Your task to perform on an android device: toggle sleep mode Image 0: 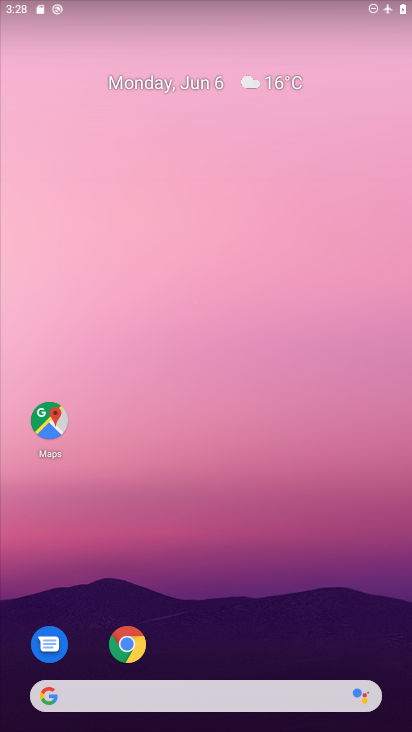
Step 0: drag from (185, 114) to (160, 44)
Your task to perform on an android device: toggle sleep mode Image 1: 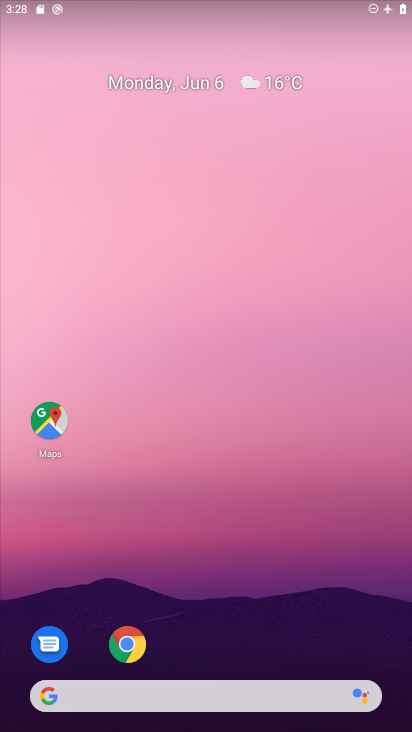
Step 1: drag from (267, 601) to (216, 51)
Your task to perform on an android device: toggle sleep mode Image 2: 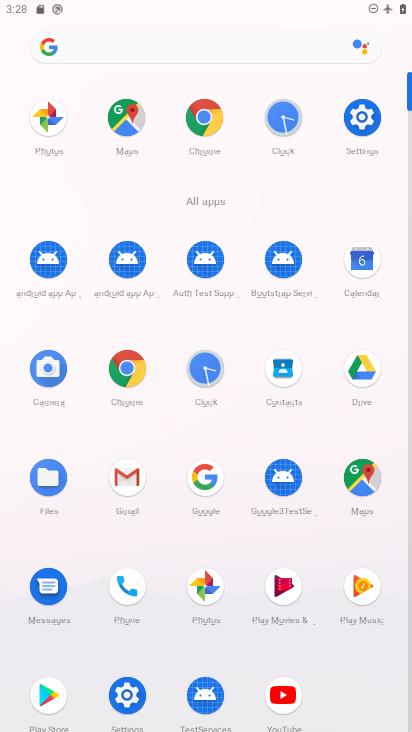
Step 2: click (356, 114)
Your task to perform on an android device: toggle sleep mode Image 3: 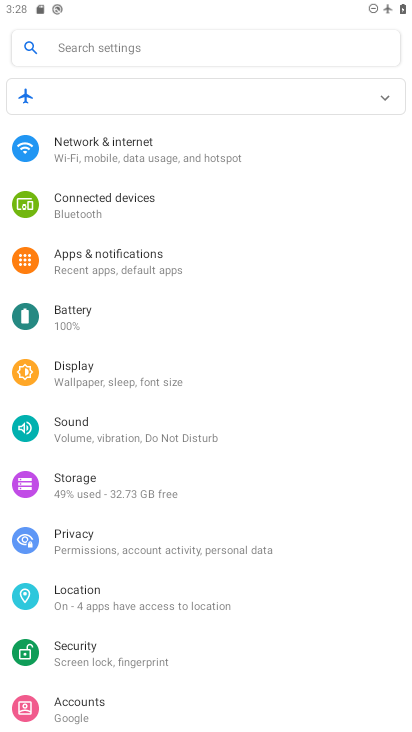
Step 3: click (100, 376)
Your task to perform on an android device: toggle sleep mode Image 4: 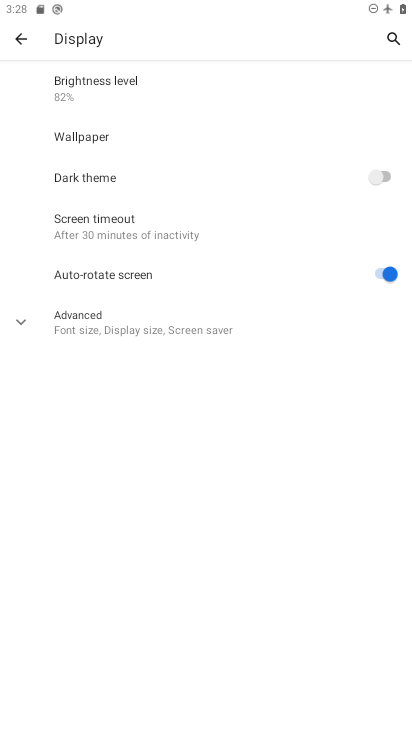
Step 4: click (141, 224)
Your task to perform on an android device: toggle sleep mode Image 5: 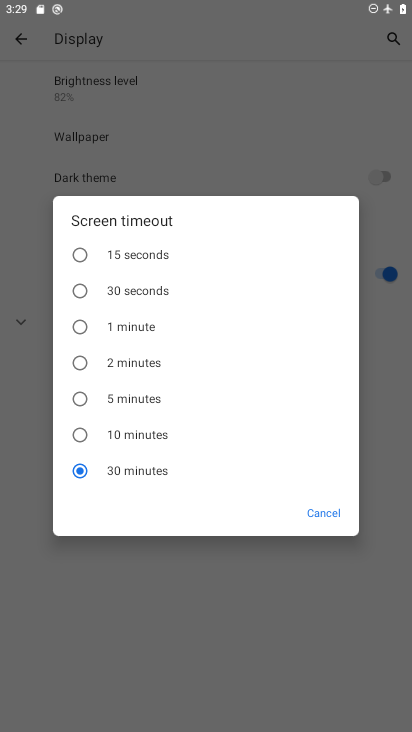
Step 5: click (328, 505)
Your task to perform on an android device: toggle sleep mode Image 6: 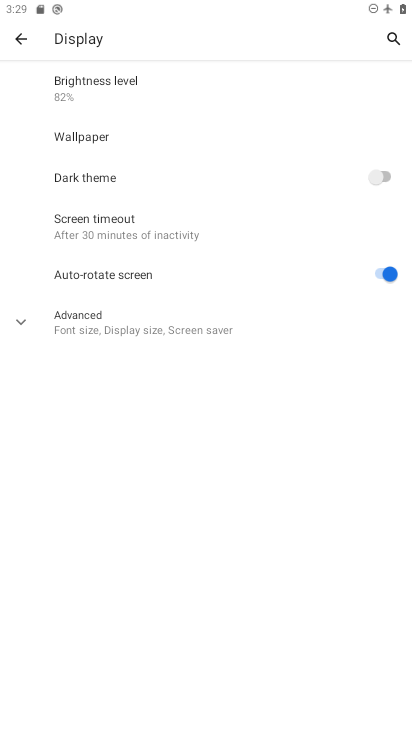
Step 6: click (153, 325)
Your task to perform on an android device: toggle sleep mode Image 7: 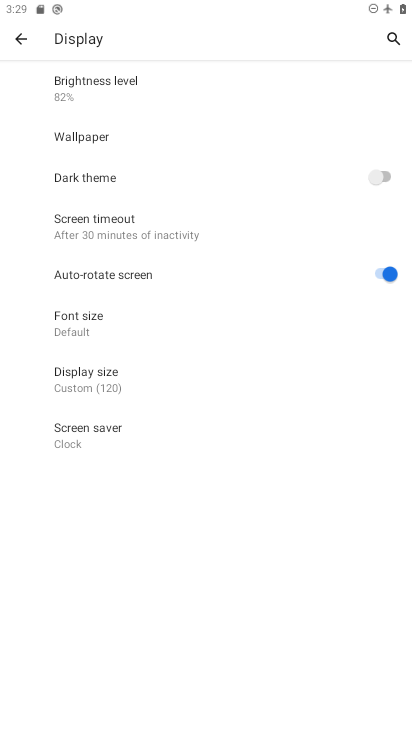
Step 7: task complete